Your task to perform on an android device: change text size in settings app Image 0: 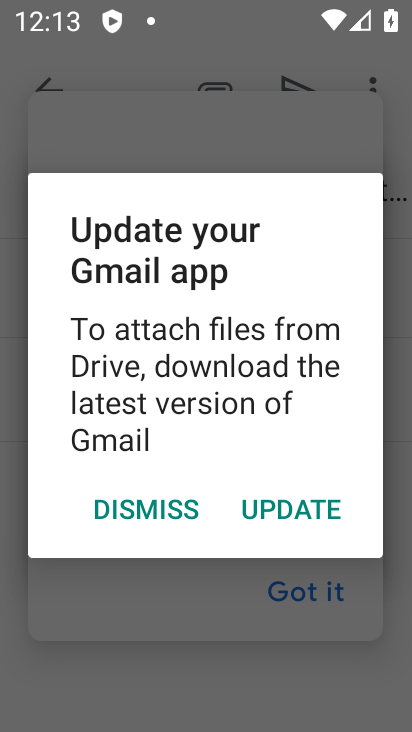
Step 0: press home button
Your task to perform on an android device: change text size in settings app Image 1: 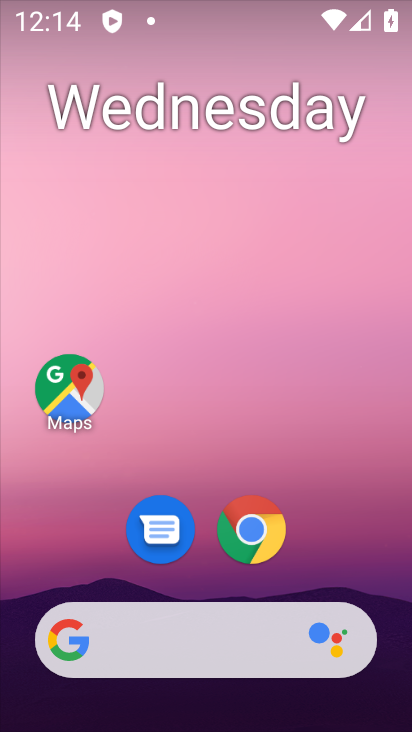
Step 1: drag from (330, 525) to (351, 133)
Your task to perform on an android device: change text size in settings app Image 2: 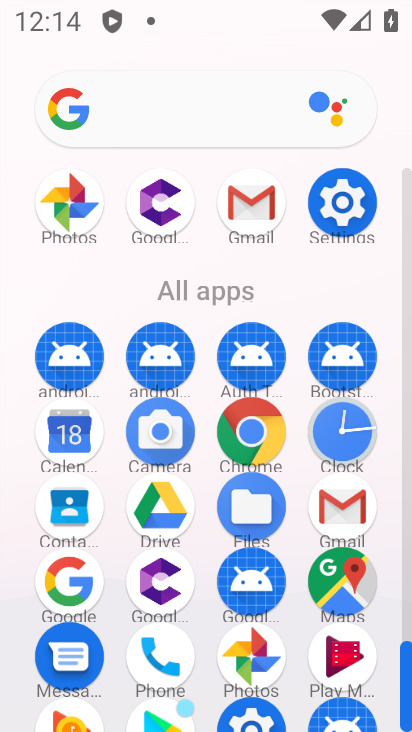
Step 2: click (366, 205)
Your task to perform on an android device: change text size in settings app Image 3: 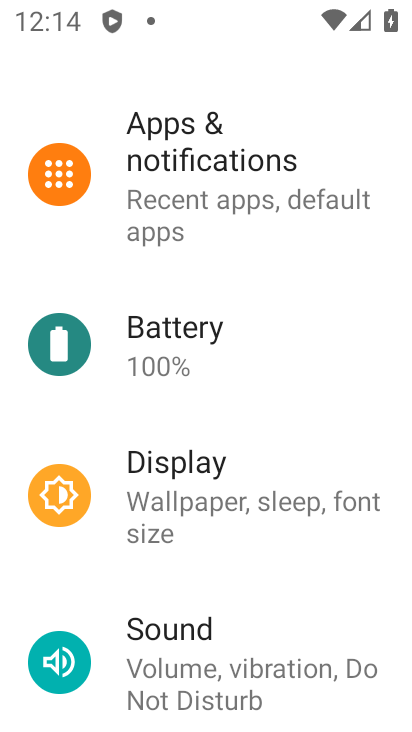
Step 3: click (255, 512)
Your task to perform on an android device: change text size in settings app Image 4: 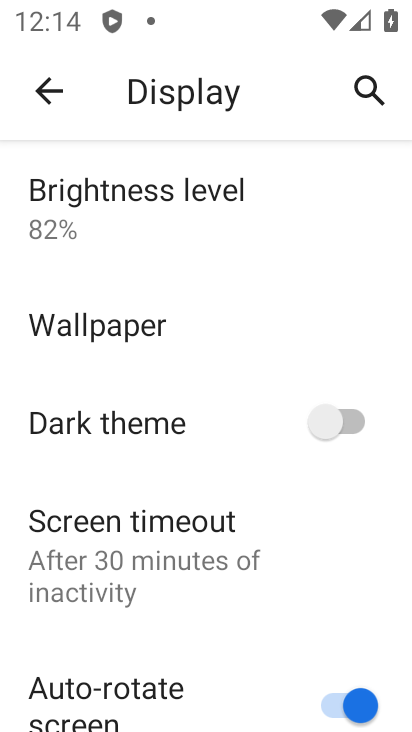
Step 4: drag from (220, 650) to (259, 297)
Your task to perform on an android device: change text size in settings app Image 5: 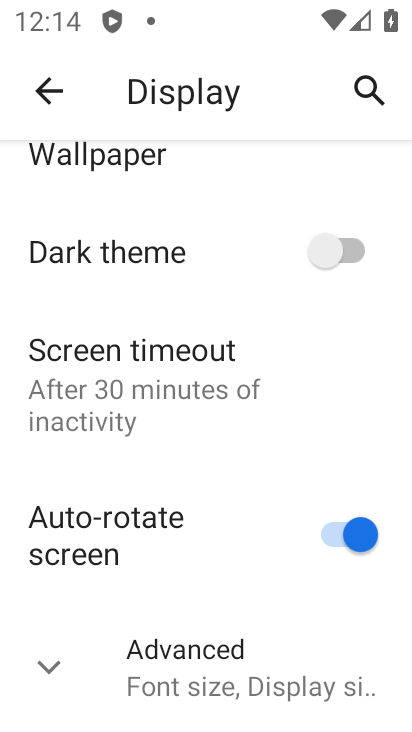
Step 5: click (47, 661)
Your task to perform on an android device: change text size in settings app Image 6: 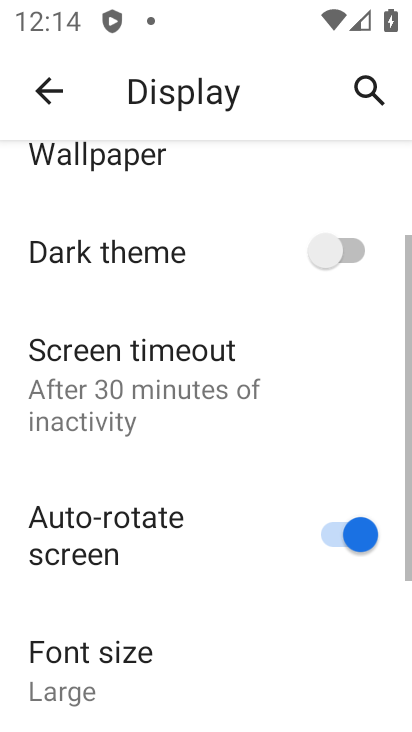
Step 6: drag from (157, 628) to (196, 423)
Your task to perform on an android device: change text size in settings app Image 7: 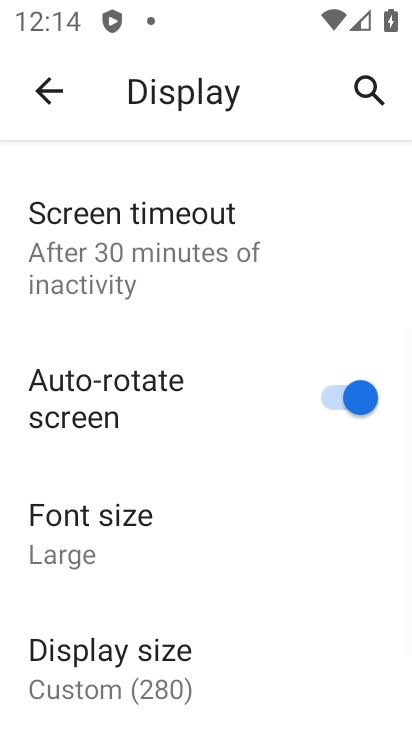
Step 7: click (107, 554)
Your task to perform on an android device: change text size in settings app Image 8: 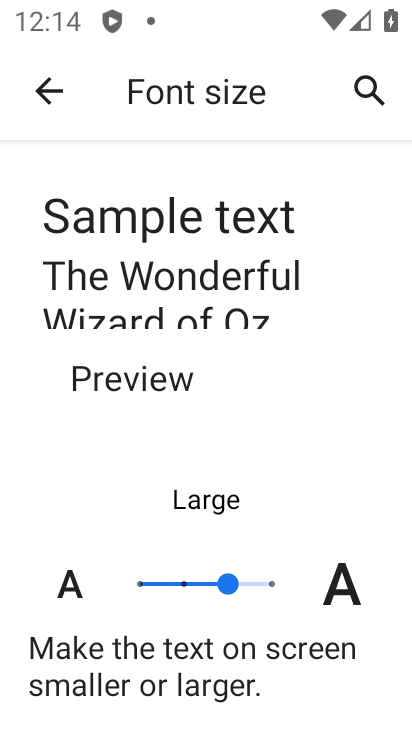
Step 8: click (138, 580)
Your task to perform on an android device: change text size in settings app Image 9: 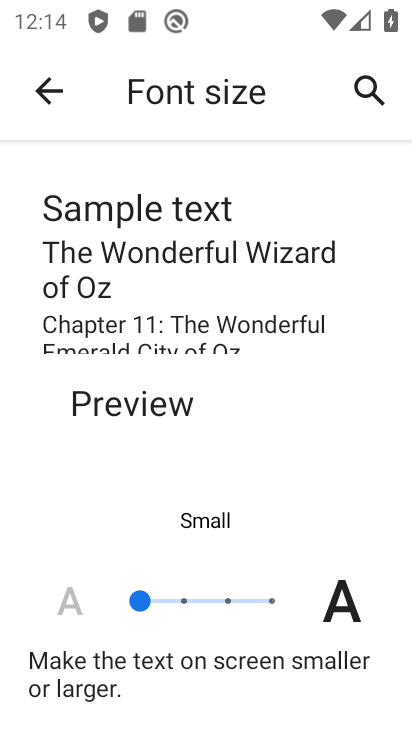
Step 9: click (185, 602)
Your task to perform on an android device: change text size in settings app Image 10: 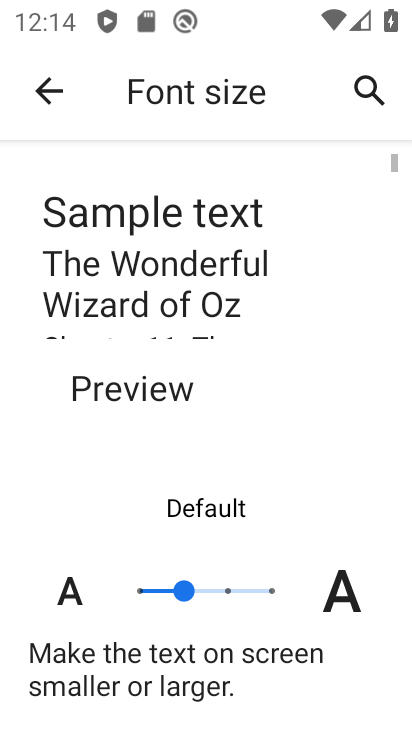
Step 10: task complete